Your task to perform on an android device: turn off sleep mode Image 0: 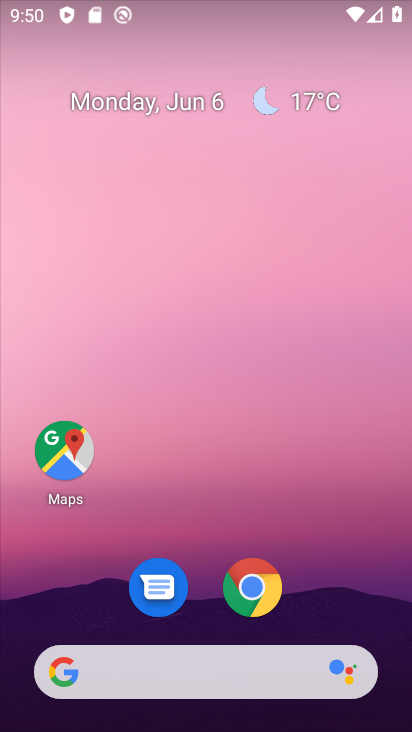
Step 0: drag from (362, 585) to (307, 199)
Your task to perform on an android device: turn off sleep mode Image 1: 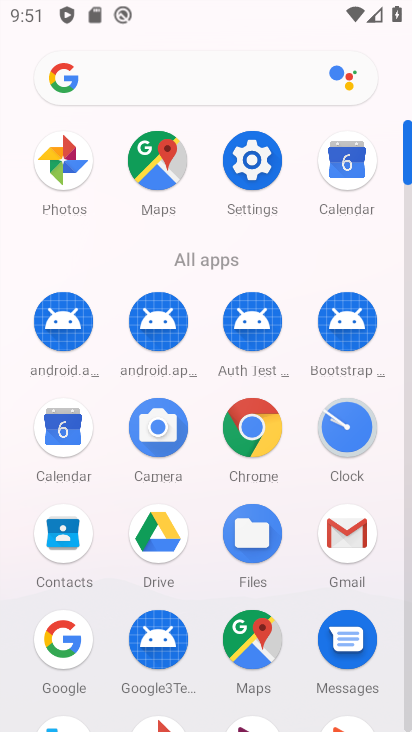
Step 1: click (248, 160)
Your task to perform on an android device: turn off sleep mode Image 2: 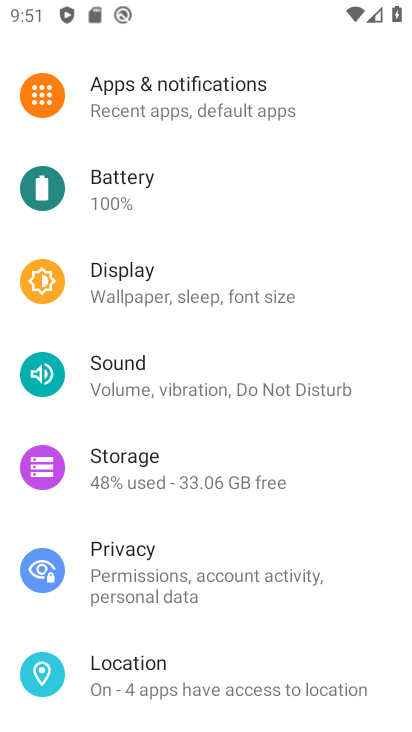
Step 2: click (201, 281)
Your task to perform on an android device: turn off sleep mode Image 3: 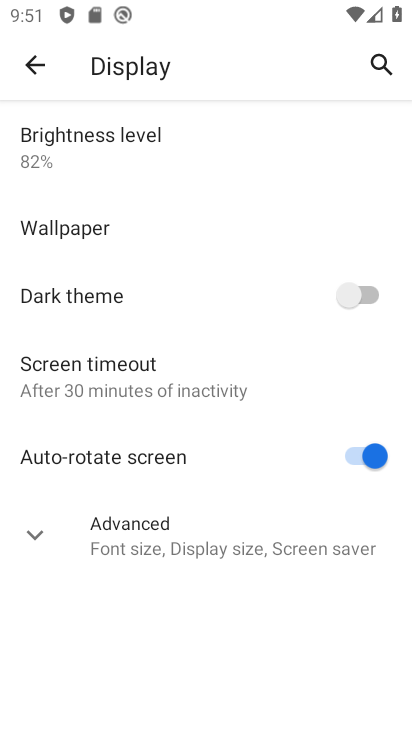
Step 3: click (271, 527)
Your task to perform on an android device: turn off sleep mode Image 4: 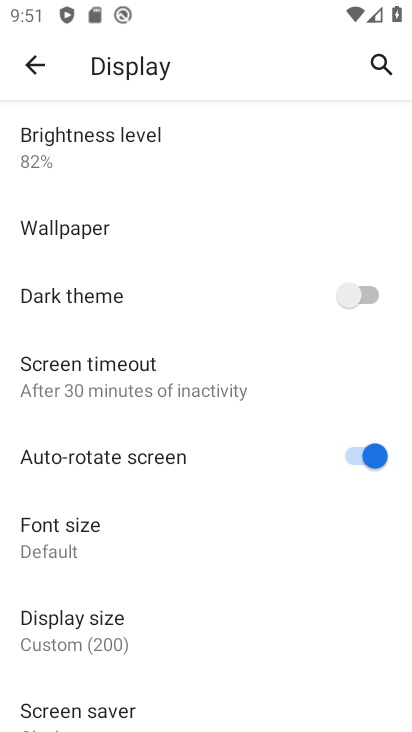
Step 4: task complete